Your task to perform on an android device: Search for Mexican restaurants on Maps Image 0: 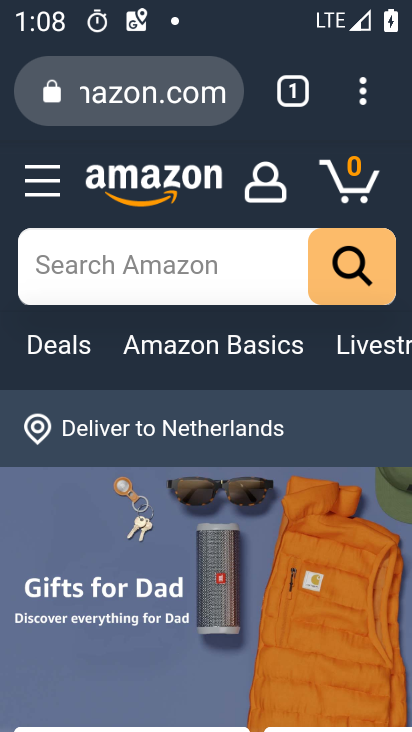
Step 0: press home button
Your task to perform on an android device: Search for Mexican restaurants on Maps Image 1: 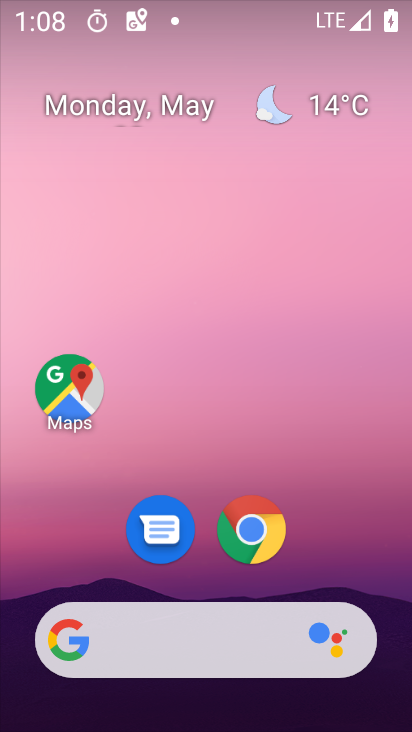
Step 1: drag from (356, 570) to (380, 211)
Your task to perform on an android device: Search for Mexican restaurants on Maps Image 2: 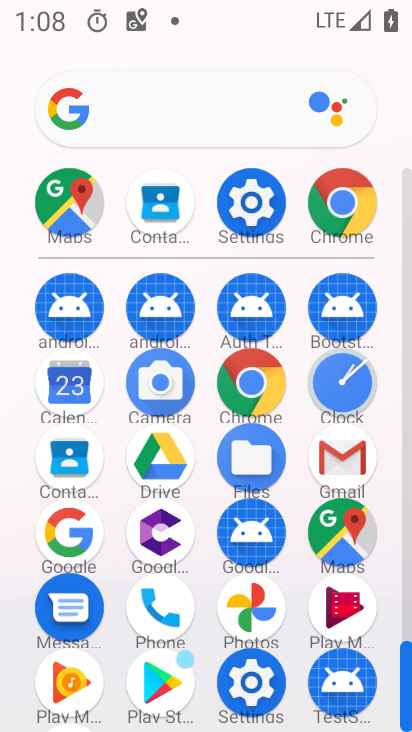
Step 2: click (366, 549)
Your task to perform on an android device: Search for Mexican restaurants on Maps Image 3: 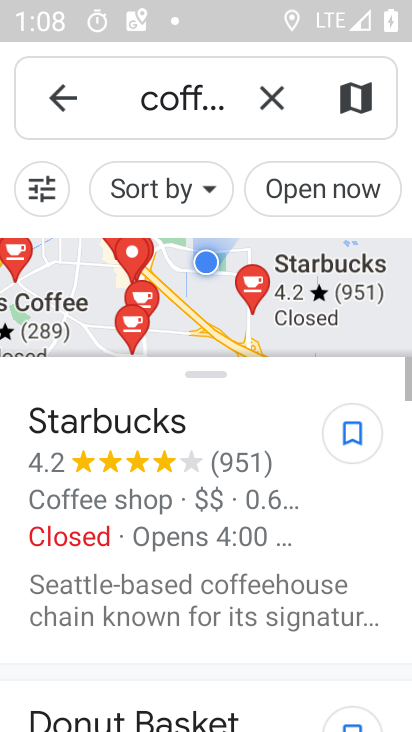
Step 3: click (273, 111)
Your task to perform on an android device: Search for Mexican restaurants on Maps Image 4: 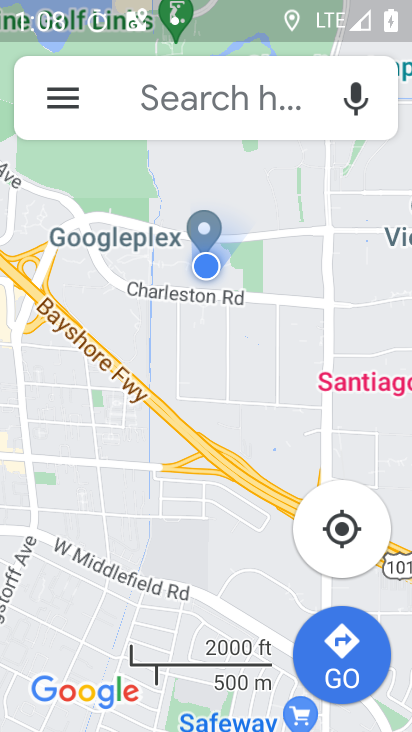
Step 4: click (273, 111)
Your task to perform on an android device: Search for Mexican restaurants on Maps Image 5: 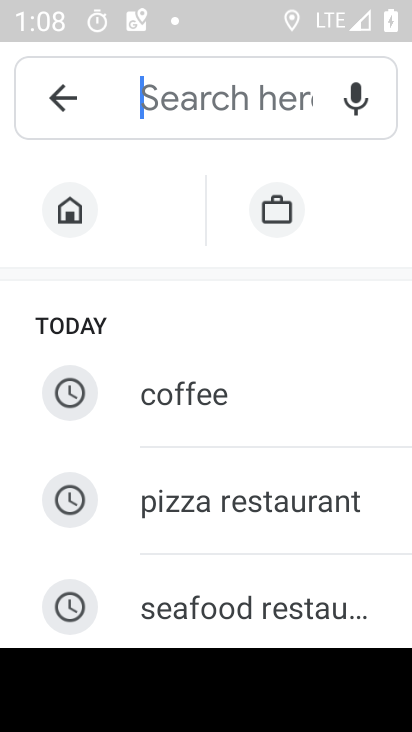
Step 5: type "mexcian restaurants"
Your task to perform on an android device: Search for Mexican restaurants on Maps Image 6: 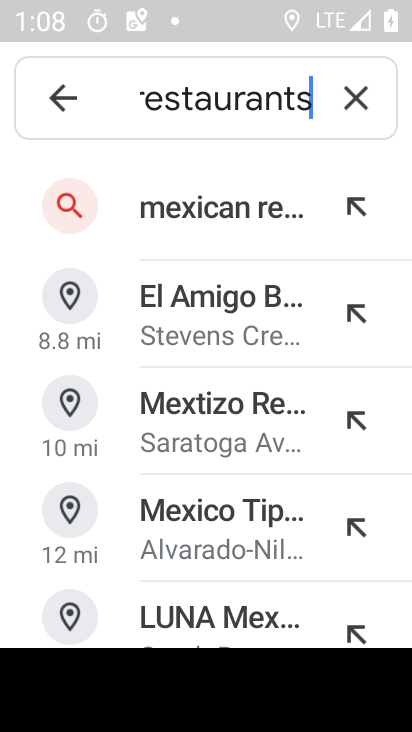
Step 6: click (276, 224)
Your task to perform on an android device: Search for Mexican restaurants on Maps Image 7: 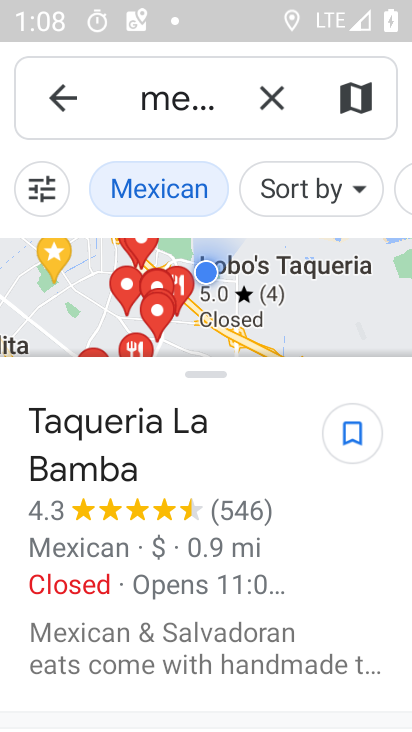
Step 7: task complete